Your task to perform on an android device: refresh tabs in the chrome app Image 0: 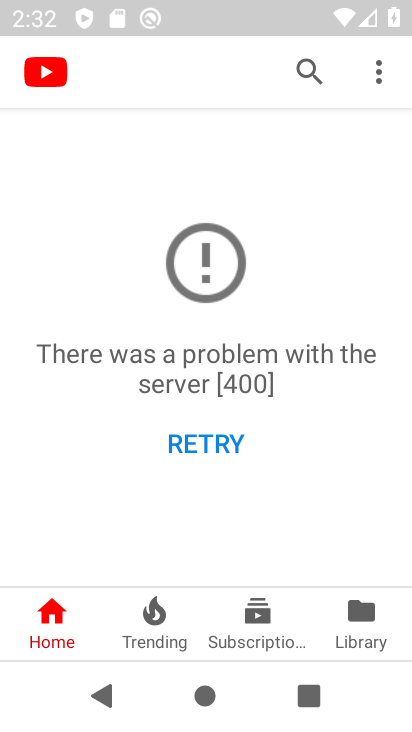
Step 0: press home button
Your task to perform on an android device: refresh tabs in the chrome app Image 1: 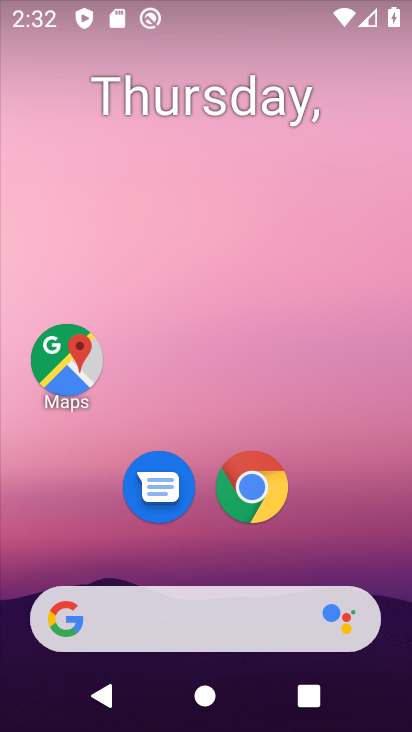
Step 1: click (282, 489)
Your task to perform on an android device: refresh tabs in the chrome app Image 2: 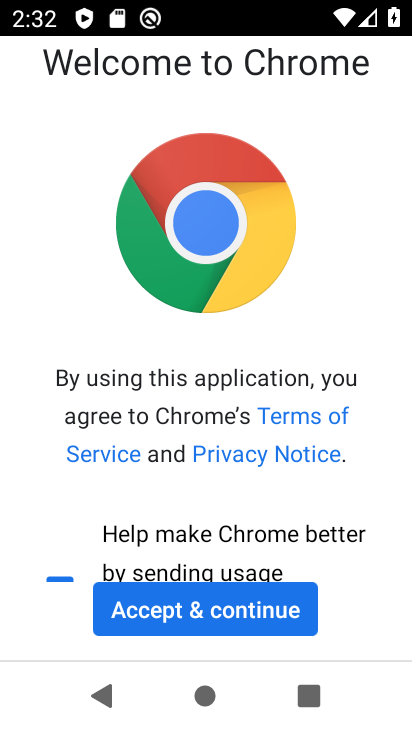
Step 2: click (220, 599)
Your task to perform on an android device: refresh tabs in the chrome app Image 3: 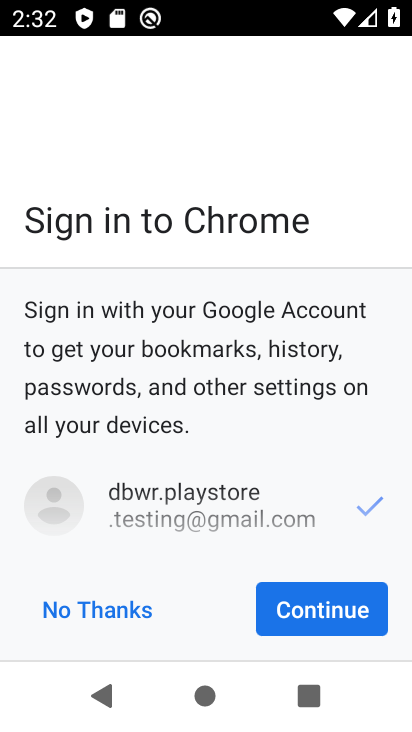
Step 3: click (66, 594)
Your task to perform on an android device: refresh tabs in the chrome app Image 4: 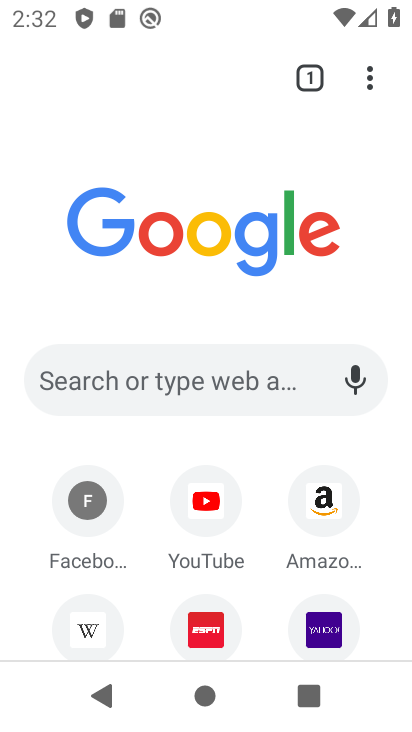
Step 4: click (362, 74)
Your task to perform on an android device: refresh tabs in the chrome app Image 5: 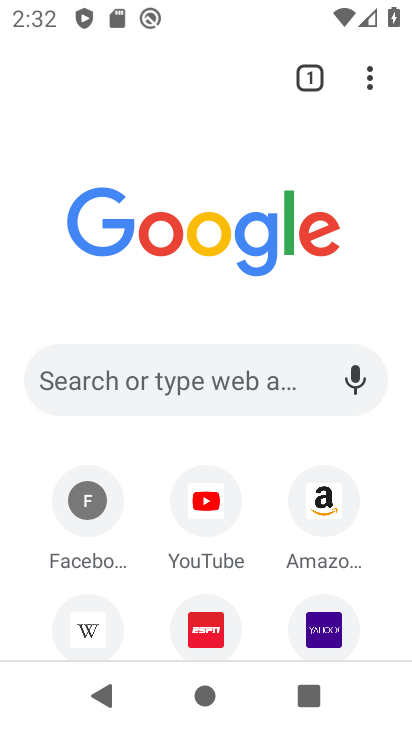
Step 5: task complete